Your task to perform on an android device: create a new album in the google photos Image 0: 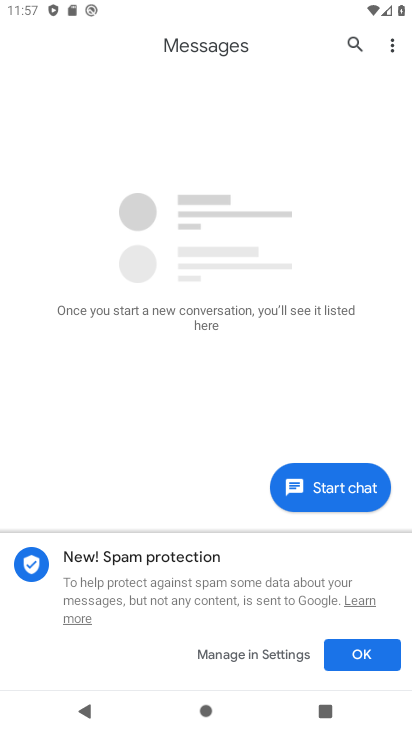
Step 0: press home button
Your task to perform on an android device: create a new album in the google photos Image 1: 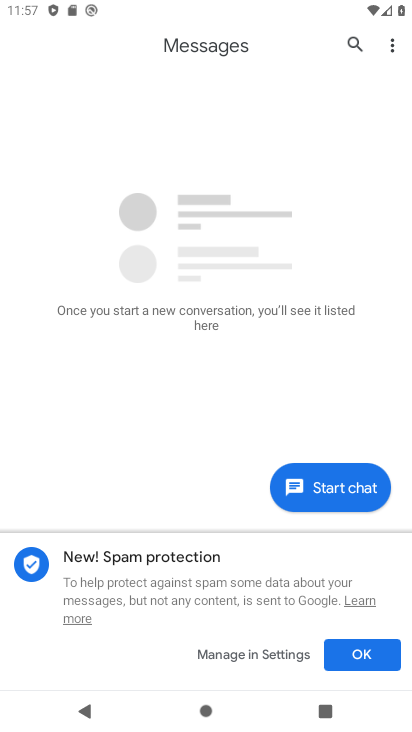
Step 1: press home button
Your task to perform on an android device: create a new album in the google photos Image 2: 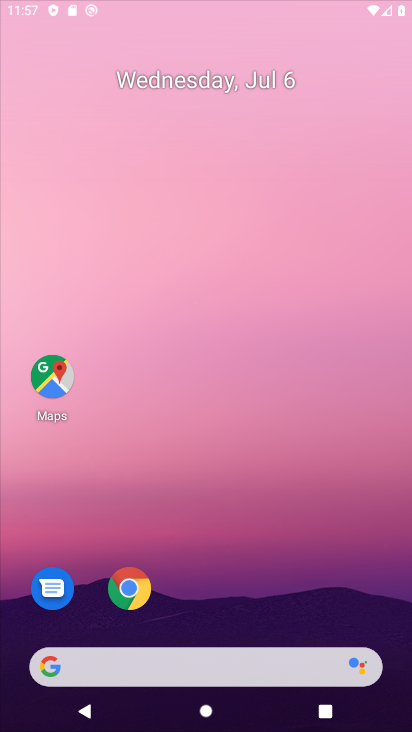
Step 2: drag from (237, 89) to (174, 9)
Your task to perform on an android device: create a new album in the google photos Image 3: 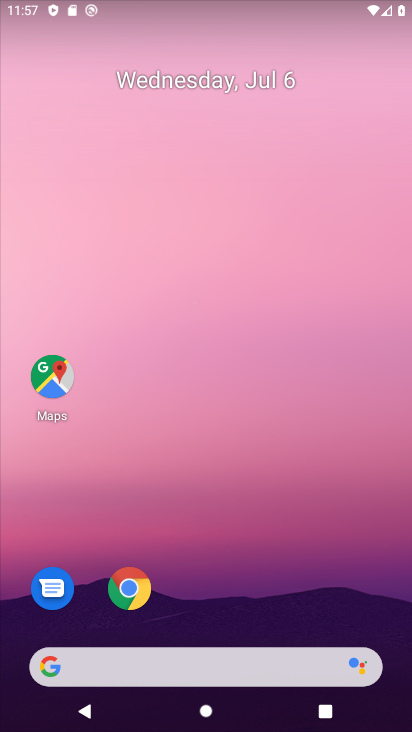
Step 3: drag from (193, 593) to (184, 5)
Your task to perform on an android device: create a new album in the google photos Image 4: 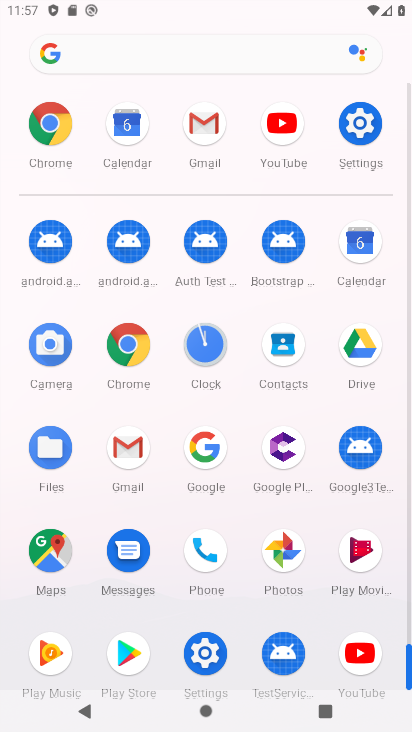
Step 4: click (282, 556)
Your task to perform on an android device: create a new album in the google photos Image 5: 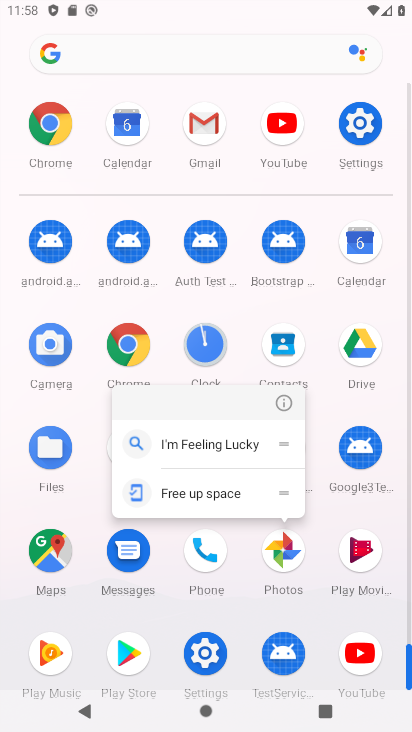
Step 5: click (282, 399)
Your task to perform on an android device: create a new album in the google photos Image 6: 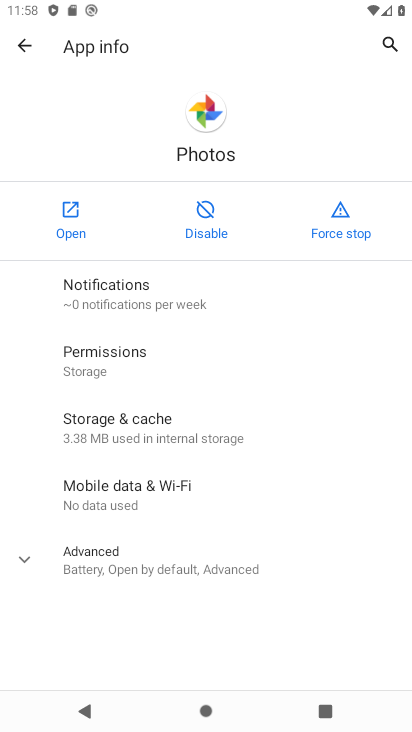
Step 6: click (63, 223)
Your task to perform on an android device: create a new album in the google photos Image 7: 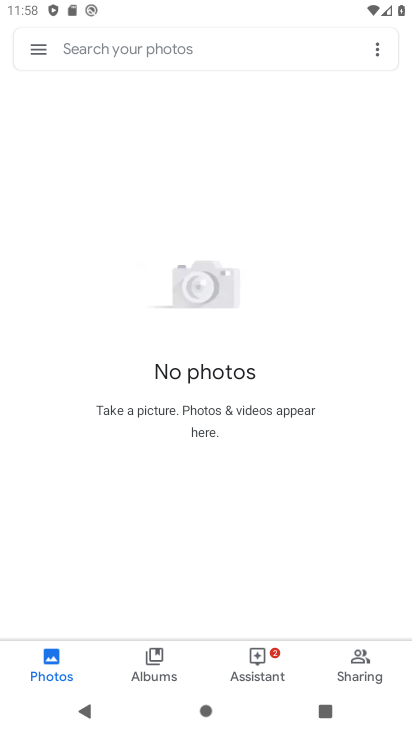
Step 7: drag from (231, 557) to (294, 325)
Your task to perform on an android device: create a new album in the google photos Image 8: 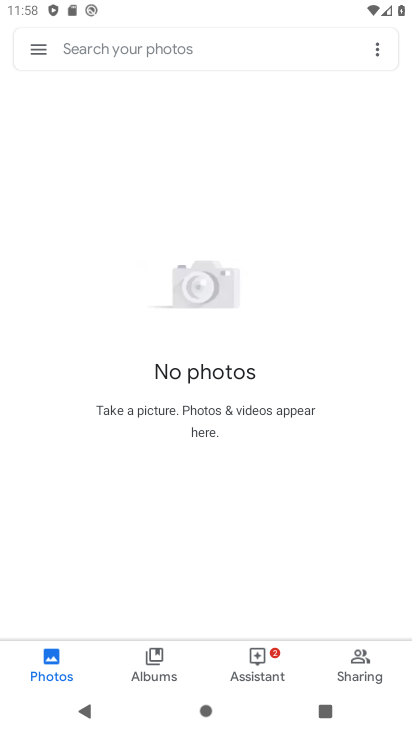
Step 8: click (147, 665)
Your task to perform on an android device: create a new album in the google photos Image 9: 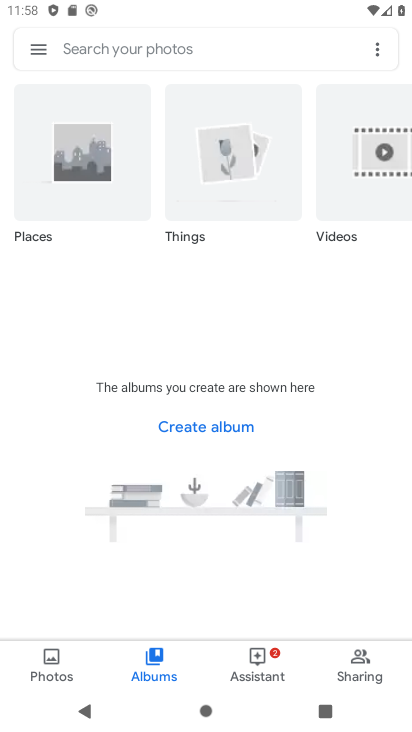
Step 9: click (183, 429)
Your task to perform on an android device: create a new album in the google photos Image 10: 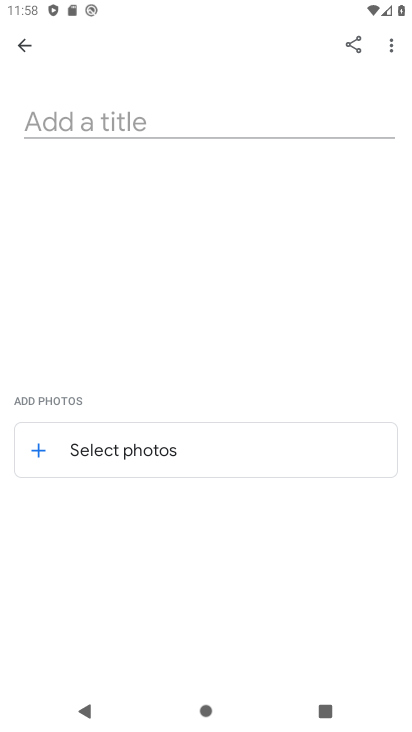
Step 10: click (95, 125)
Your task to perform on an android device: create a new album in the google photos Image 11: 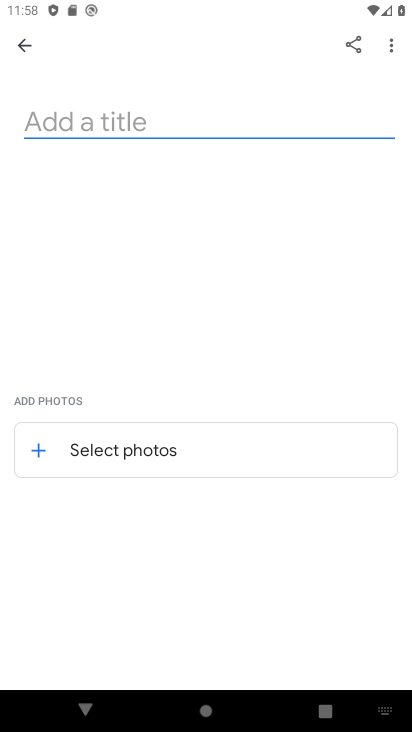
Step 11: type "bhj"
Your task to perform on an android device: create a new album in the google photos Image 12: 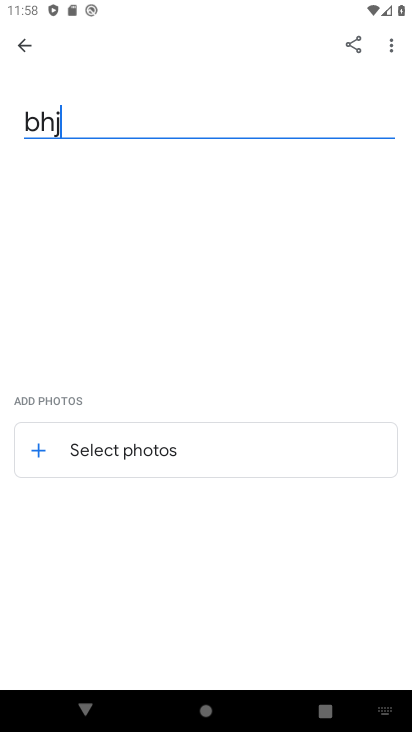
Step 12: click (51, 453)
Your task to perform on an android device: create a new album in the google photos Image 13: 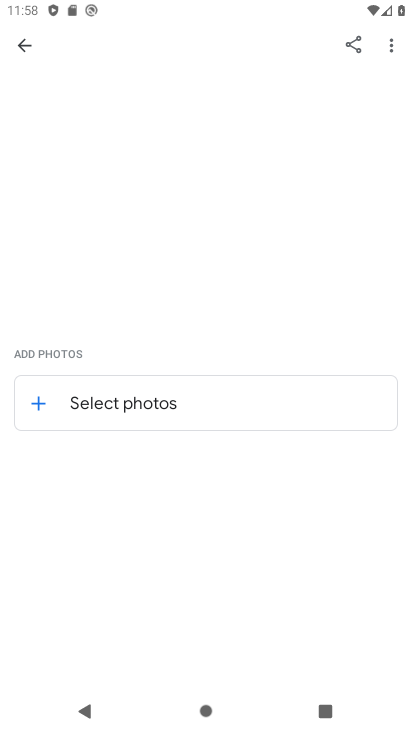
Step 13: click (181, 332)
Your task to perform on an android device: create a new album in the google photos Image 14: 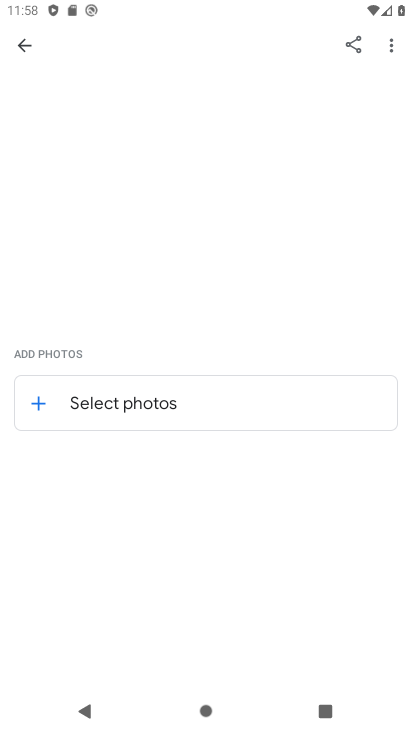
Step 14: click (40, 408)
Your task to perform on an android device: create a new album in the google photos Image 15: 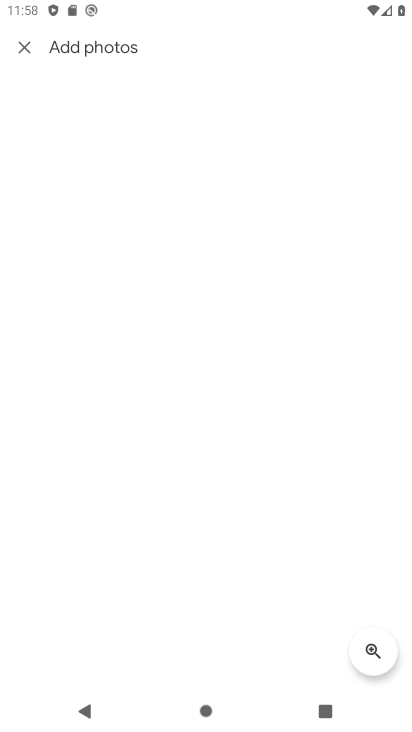
Step 15: task complete